Your task to perform on an android device: Go to display settings Image 0: 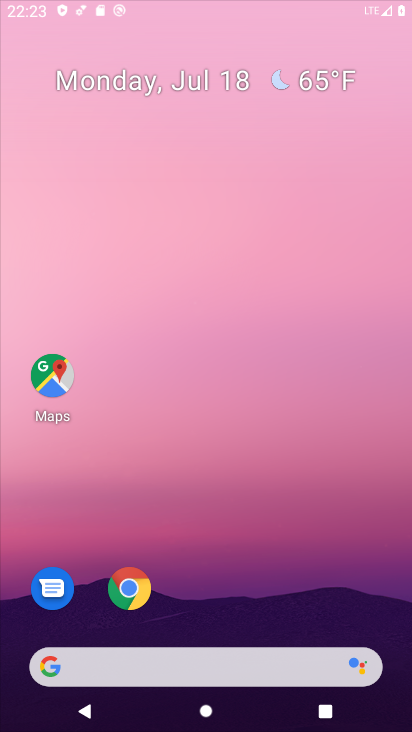
Step 0: press home button
Your task to perform on an android device: Go to display settings Image 1: 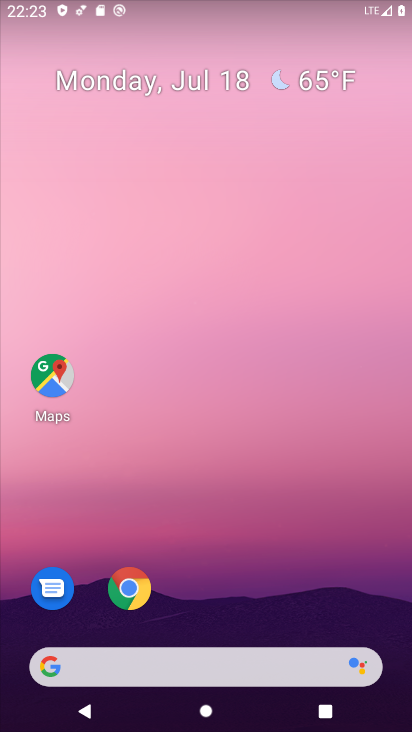
Step 1: drag from (243, 613) to (215, 117)
Your task to perform on an android device: Go to display settings Image 2: 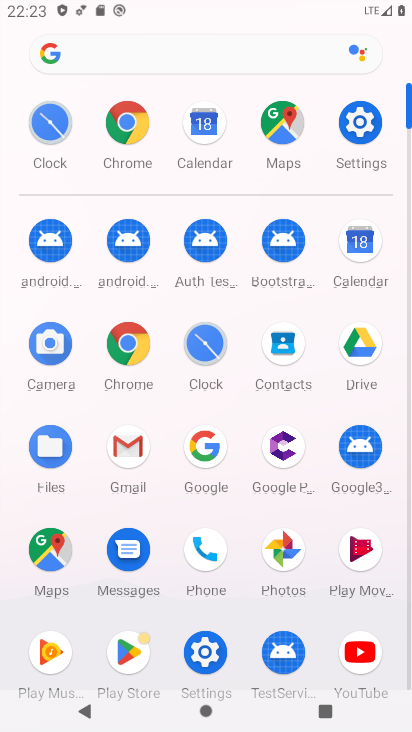
Step 2: click (363, 119)
Your task to perform on an android device: Go to display settings Image 3: 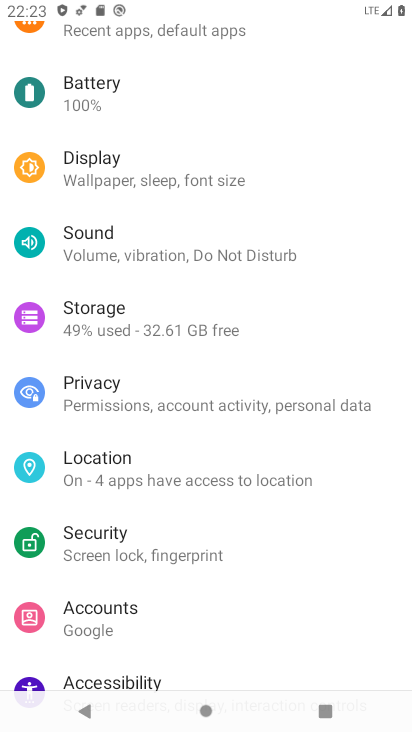
Step 3: click (79, 167)
Your task to perform on an android device: Go to display settings Image 4: 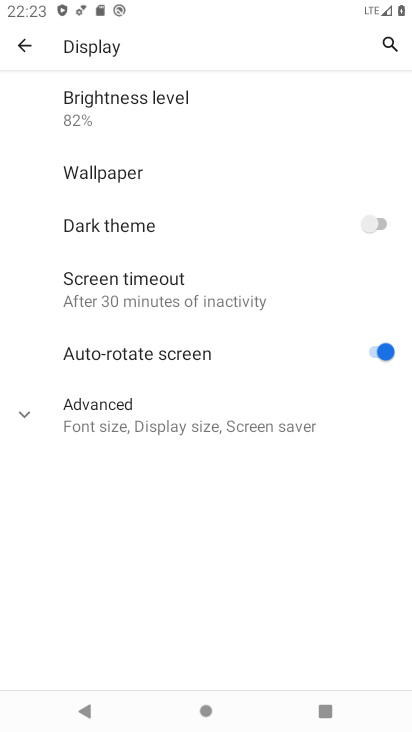
Step 4: task complete